Your task to perform on an android device: turn on priority inbox in the gmail app Image 0: 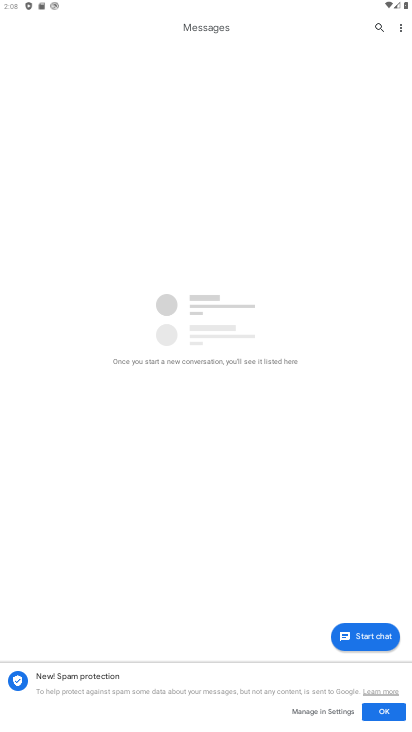
Step 0: press home button
Your task to perform on an android device: turn on priority inbox in the gmail app Image 1: 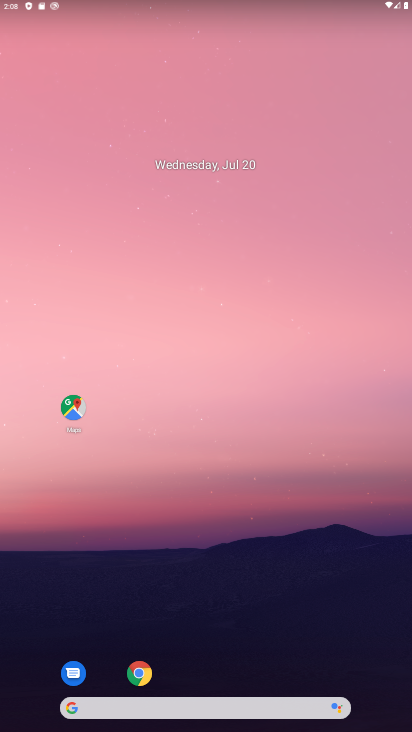
Step 1: drag from (216, 670) to (45, 57)
Your task to perform on an android device: turn on priority inbox in the gmail app Image 2: 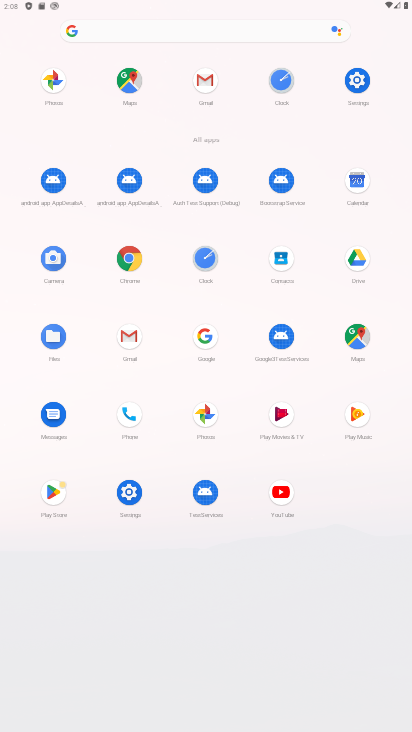
Step 2: click (136, 340)
Your task to perform on an android device: turn on priority inbox in the gmail app Image 3: 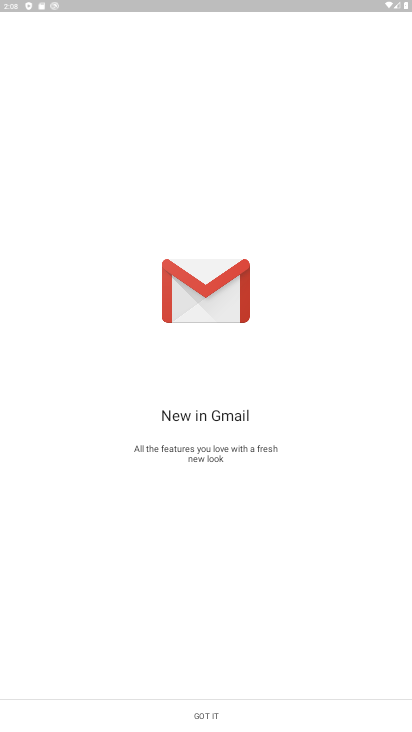
Step 3: click (207, 700)
Your task to perform on an android device: turn on priority inbox in the gmail app Image 4: 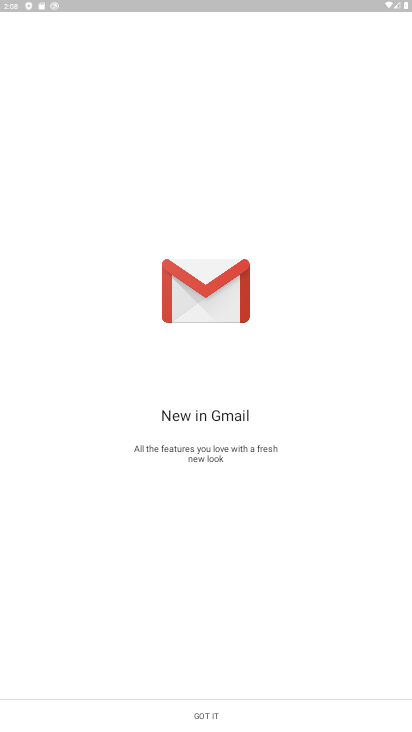
Step 4: click (208, 706)
Your task to perform on an android device: turn on priority inbox in the gmail app Image 5: 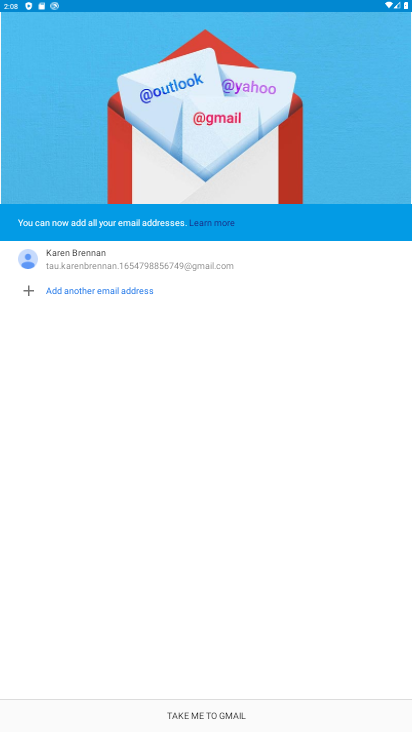
Step 5: click (208, 706)
Your task to perform on an android device: turn on priority inbox in the gmail app Image 6: 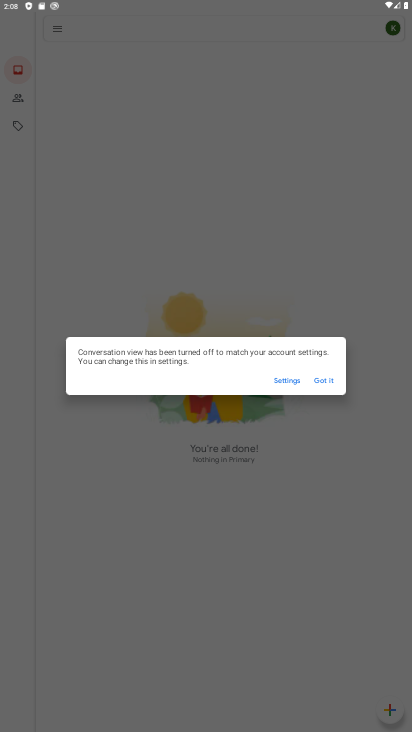
Step 6: click (324, 378)
Your task to perform on an android device: turn on priority inbox in the gmail app Image 7: 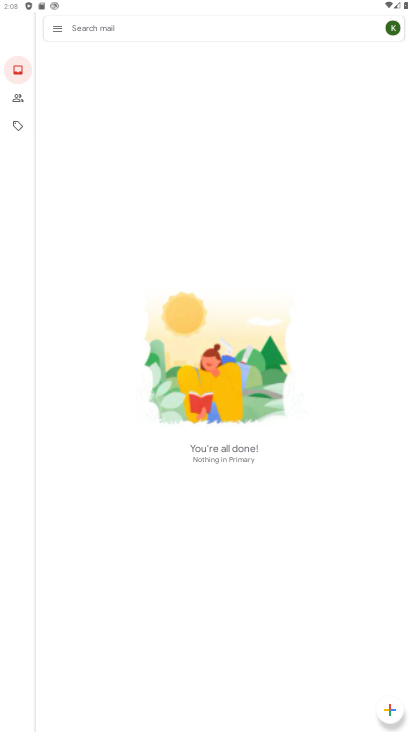
Step 7: click (55, 32)
Your task to perform on an android device: turn on priority inbox in the gmail app Image 8: 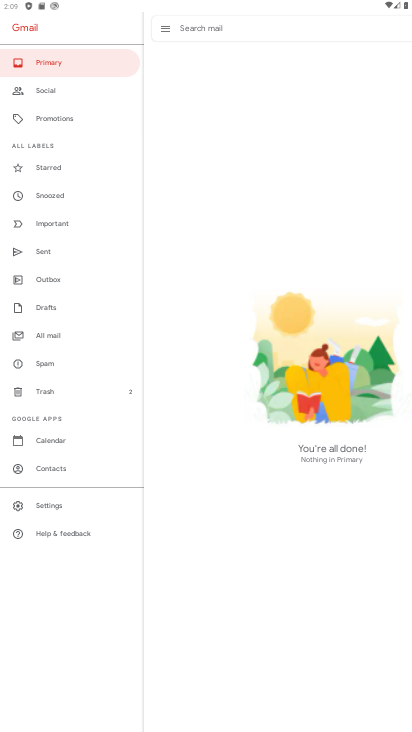
Step 8: click (55, 510)
Your task to perform on an android device: turn on priority inbox in the gmail app Image 9: 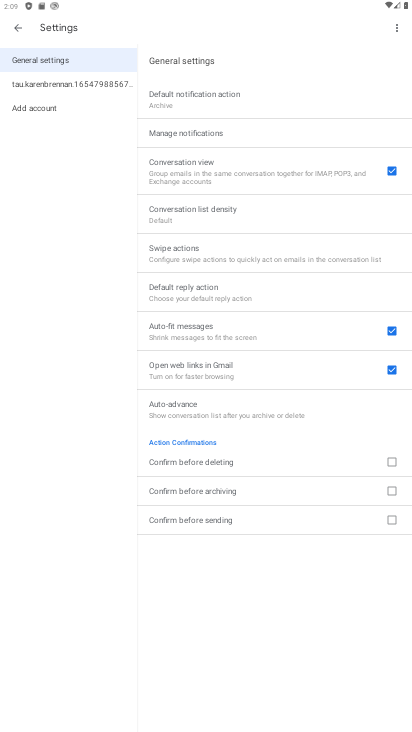
Step 9: click (63, 80)
Your task to perform on an android device: turn on priority inbox in the gmail app Image 10: 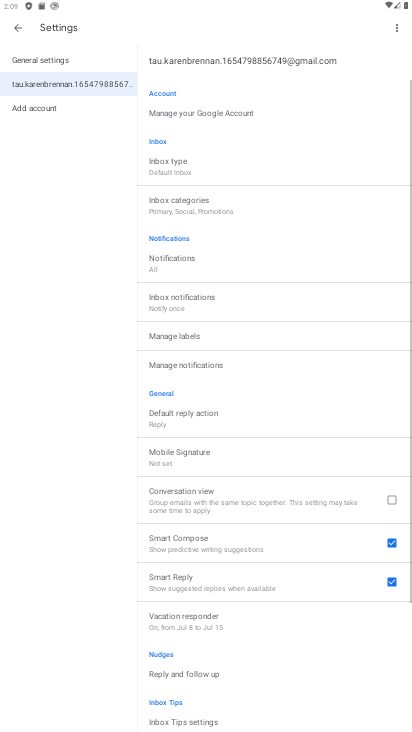
Step 10: click (160, 169)
Your task to perform on an android device: turn on priority inbox in the gmail app Image 11: 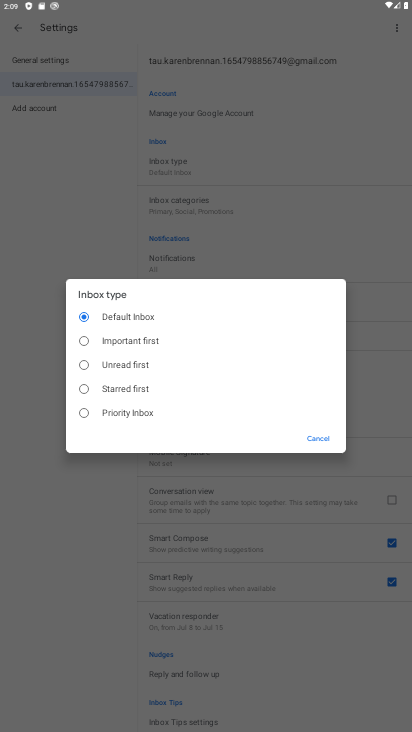
Step 11: click (105, 415)
Your task to perform on an android device: turn on priority inbox in the gmail app Image 12: 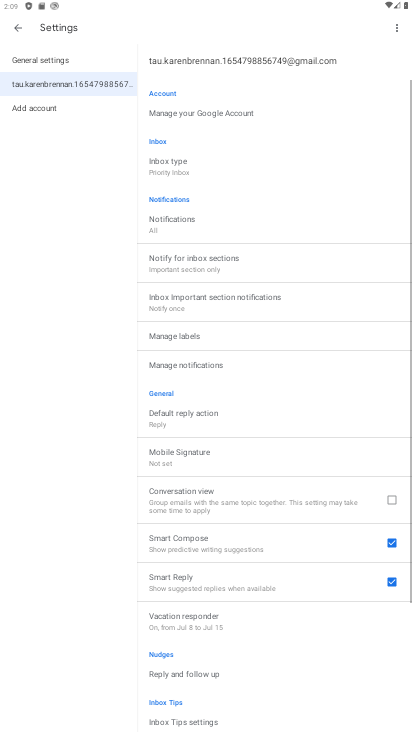
Step 12: task complete